Your task to perform on an android device: clear history in the chrome app Image 0: 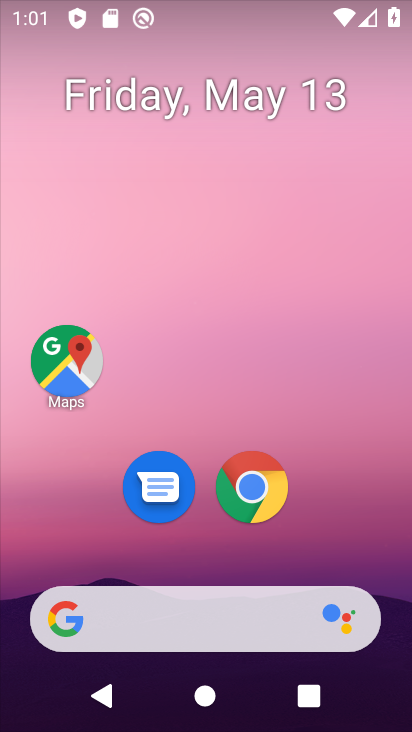
Step 0: drag from (359, 543) to (316, 182)
Your task to perform on an android device: clear history in the chrome app Image 1: 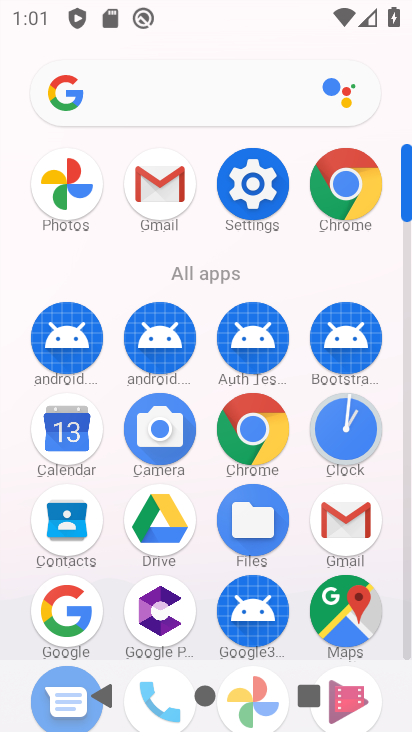
Step 1: click (252, 430)
Your task to perform on an android device: clear history in the chrome app Image 2: 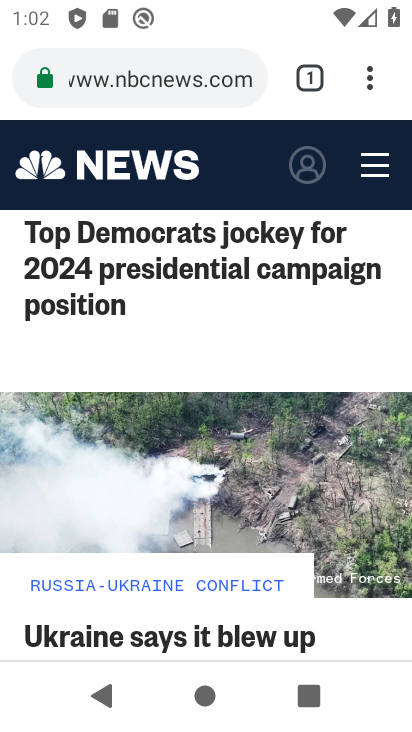
Step 2: task complete